Your task to perform on an android device: Open accessibility settings Image 0: 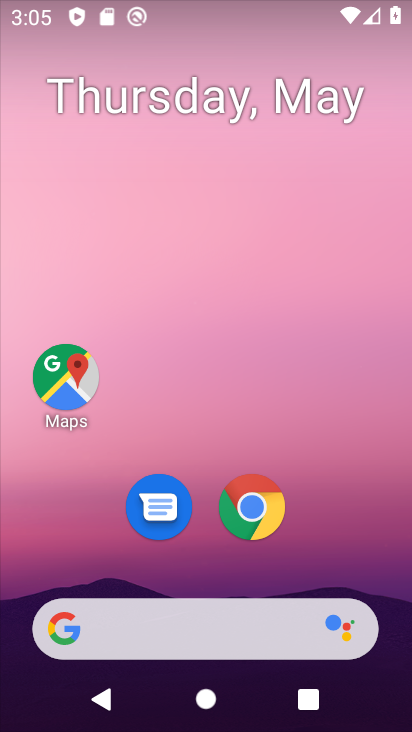
Step 0: drag from (334, 576) to (332, 77)
Your task to perform on an android device: Open accessibility settings Image 1: 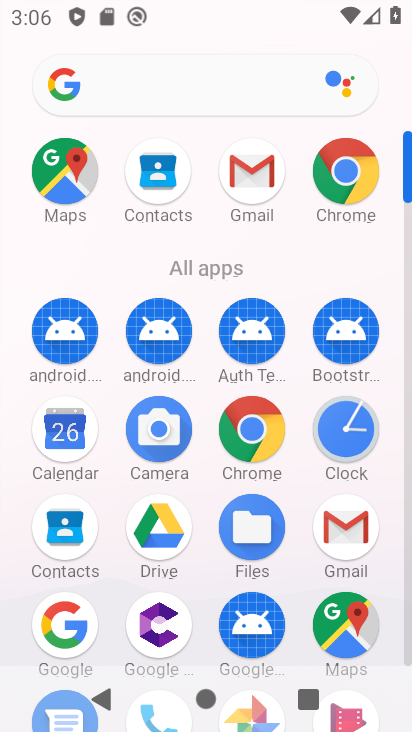
Step 1: drag from (197, 285) to (227, 49)
Your task to perform on an android device: Open accessibility settings Image 2: 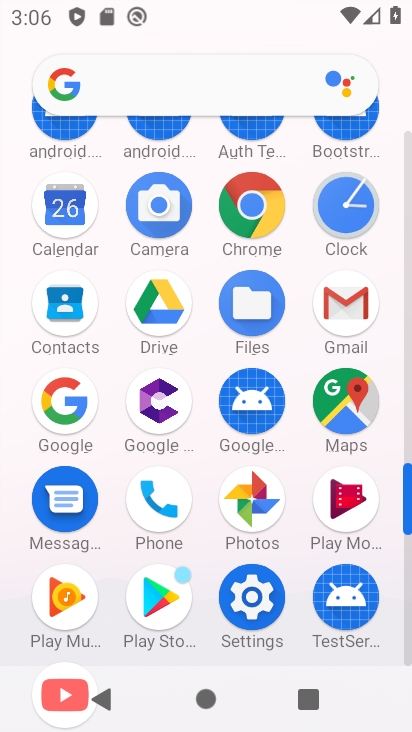
Step 2: click (249, 589)
Your task to perform on an android device: Open accessibility settings Image 3: 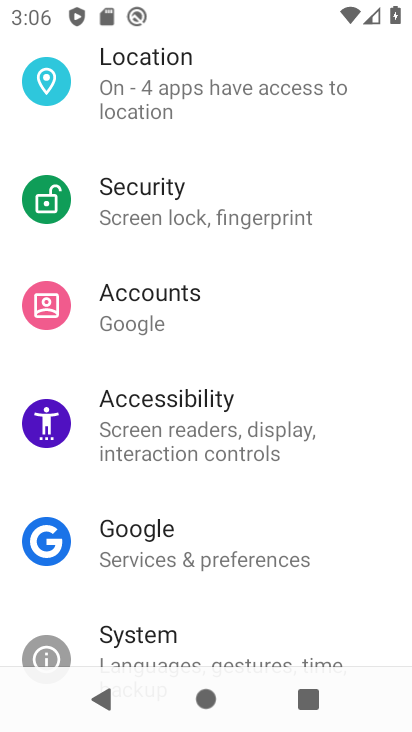
Step 3: click (139, 426)
Your task to perform on an android device: Open accessibility settings Image 4: 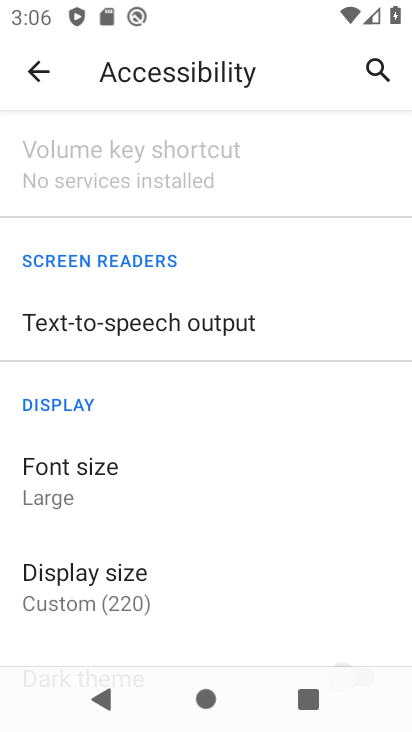
Step 4: task complete